Your task to perform on an android device: check the backup settings in the google photos Image 0: 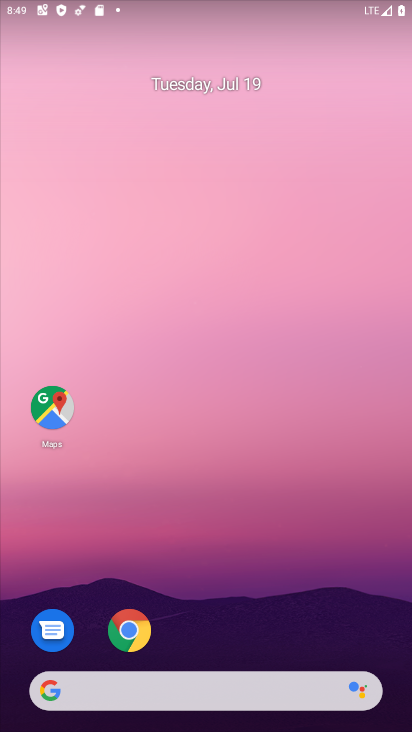
Step 0: drag from (188, 692) to (170, 149)
Your task to perform on an android device: check the backup settings in the google photos Image 1: 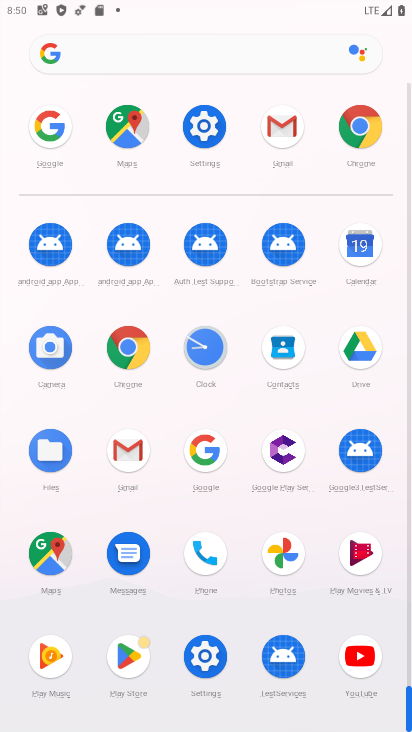
Step 1: click (277, 563)
Your task to perform on an android device: check the backup settings in the google photos Image 2: 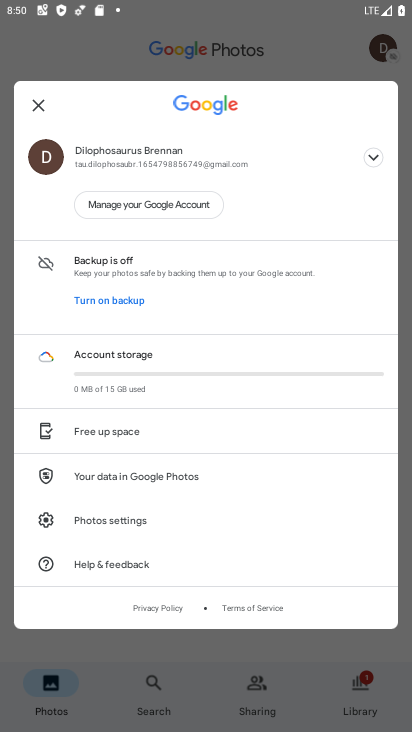
Step 2: click (85, 521)
Your task to perform on an android device: check the backup settings in the google photos Image 3: 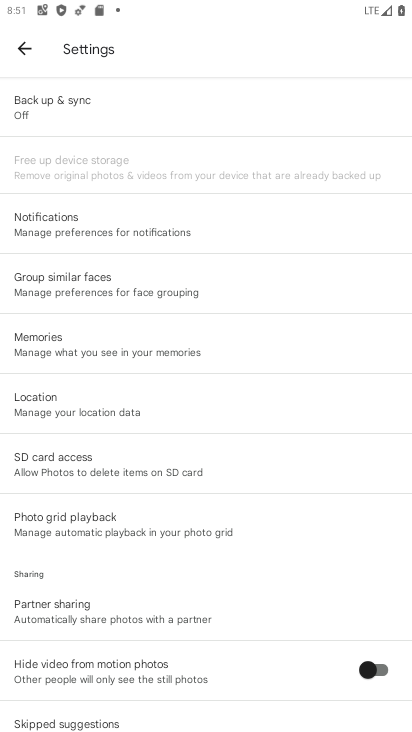
Step 3: click (77, 112)
Your task to perform on an android device: check the backup settings in the google photos Image 4: 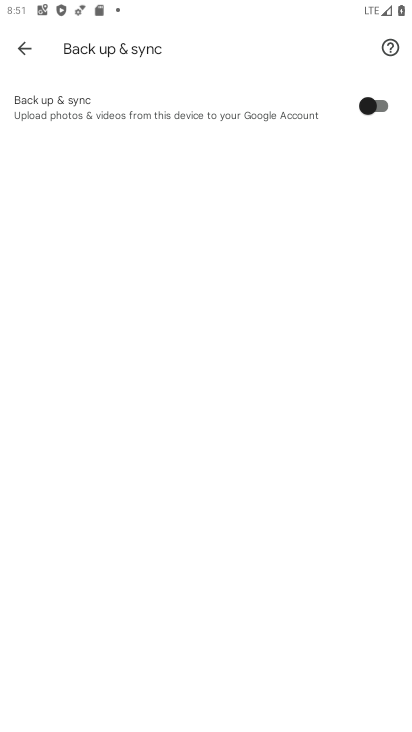
Step 4: task complete